Your task to perform on an android device: Search for vegetarian restaurants on Maps Image 0: 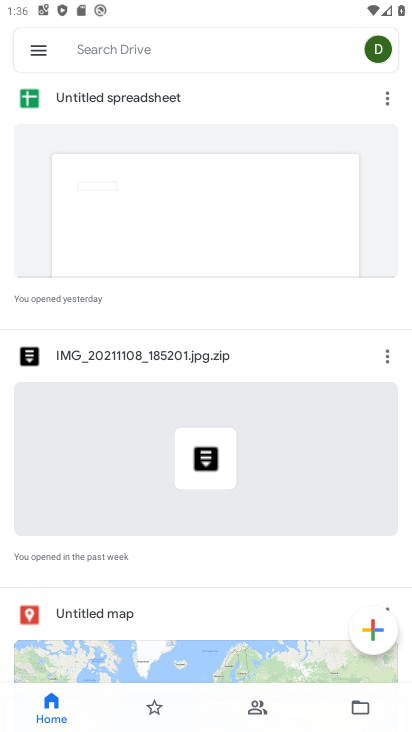
Step 0: press home button
Your task to perform on an android device: Search for vegetarian restaurants on Maps Image 1: 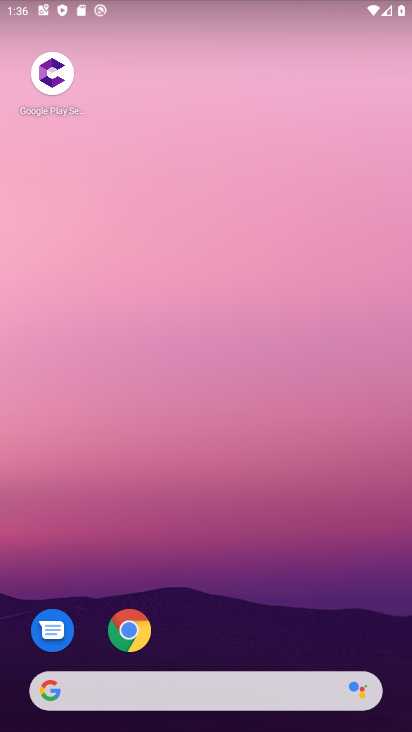
Step 1: drag from (388, 641) to (334, 110)
Your task to perform on an android device: Search for vegetarian restaurants on Maps Image 2: 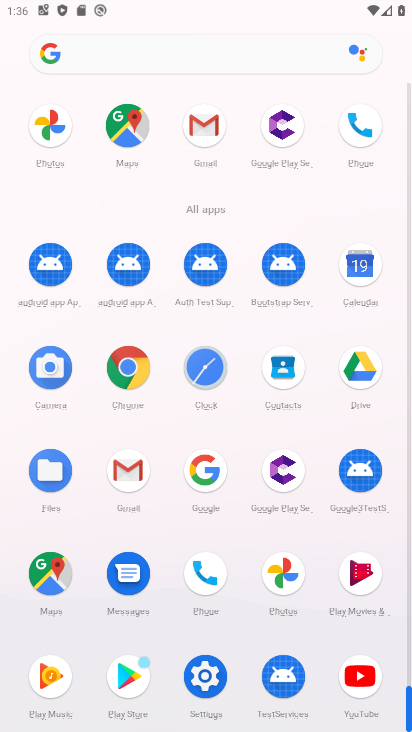
Step 2: click (47, 572)
Your task to perform on an android device: Search for vegetarian restaurants on Maps Image 3: 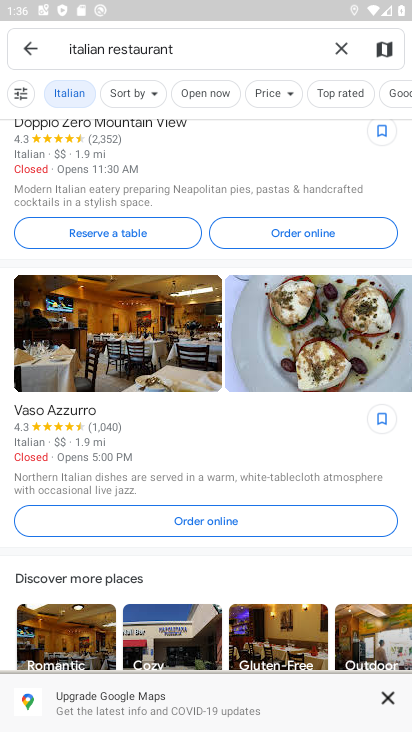
Step 3: click (343, 47)
Your task to perform on an android device: Search for vegetarian restaurants on Maps Image 4: 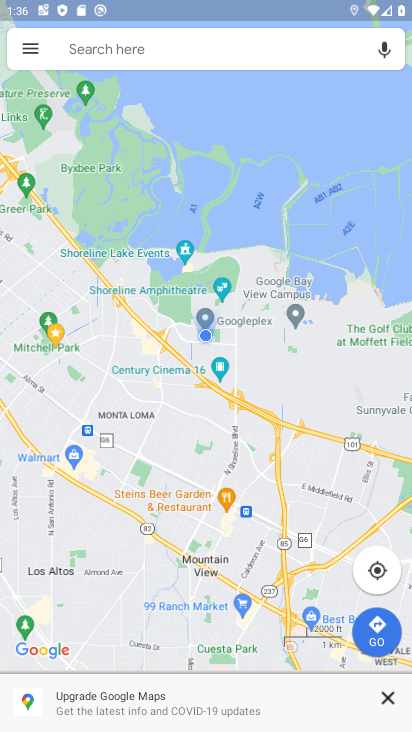
Step 4: click (165, 50)
Your task to perform on an android device: Search for vegetarian restaurants on Maps Image 5: 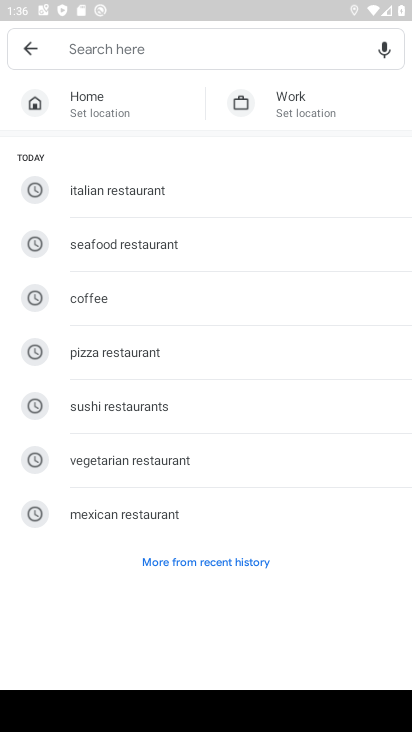
Step 5: type "vegetarian restaurants"
Your task to perform on an android device: Search for vegetarian restaurants on Maps Image 6: 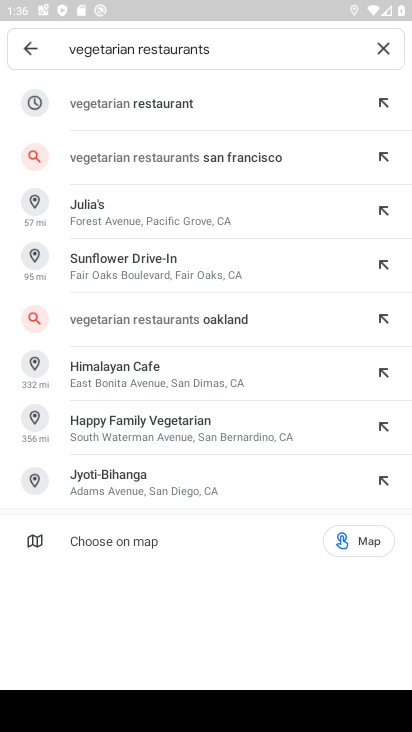
Step 6: click (153, 95)
Your task to perform on an android device: Search for vegetarian restaurants on Maps Image 7: 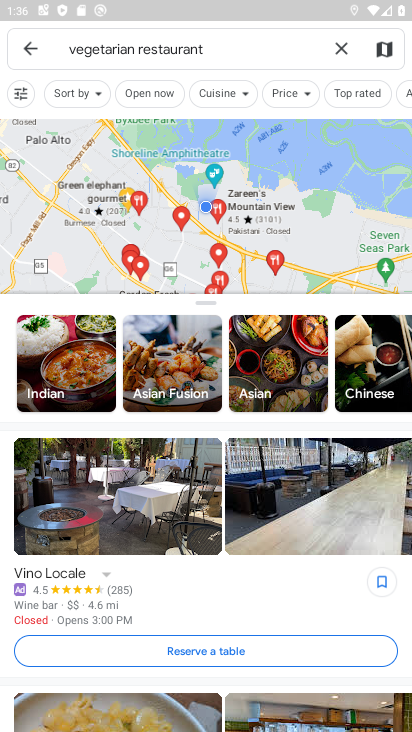
Step 7: task complete